Your task to perform on an android device: What's the weather today? Image 0: 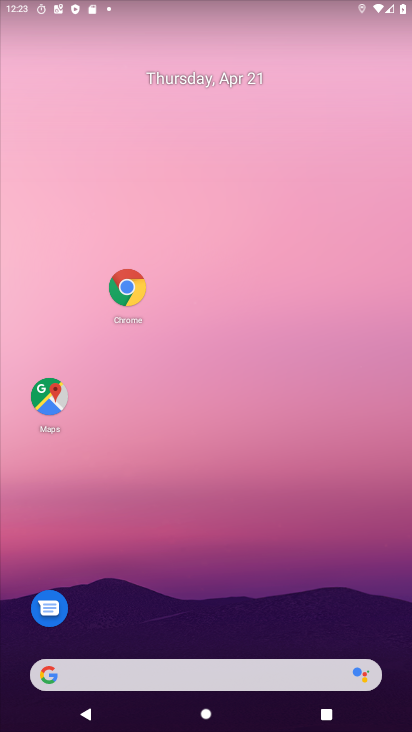
Step 0: click (128, 276)
Your task to perform on an android device: What's the weather today? Image 1: 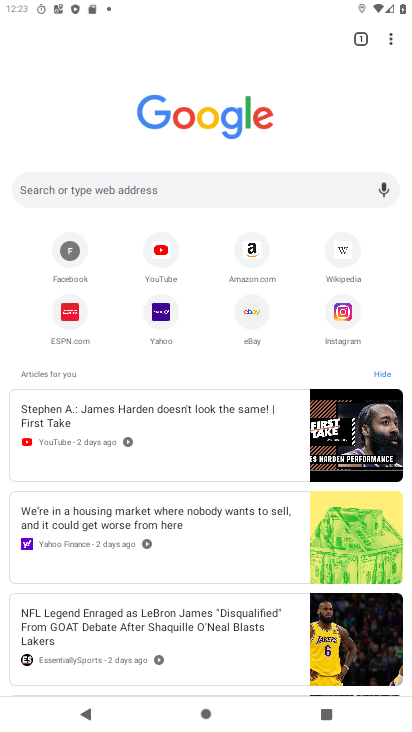
Step 1: click (276, 187)
Your task to perform on an android device: What's the weather today? Image 2: 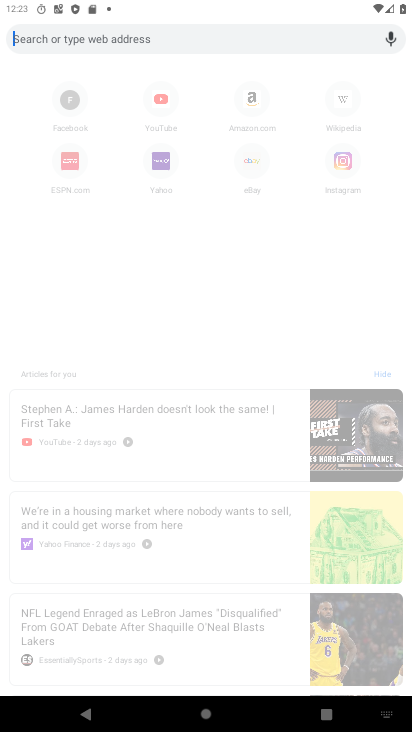
Step 2: type "whats the weather today"
Your task to perform on an android device: What's the weather today? Image 3: 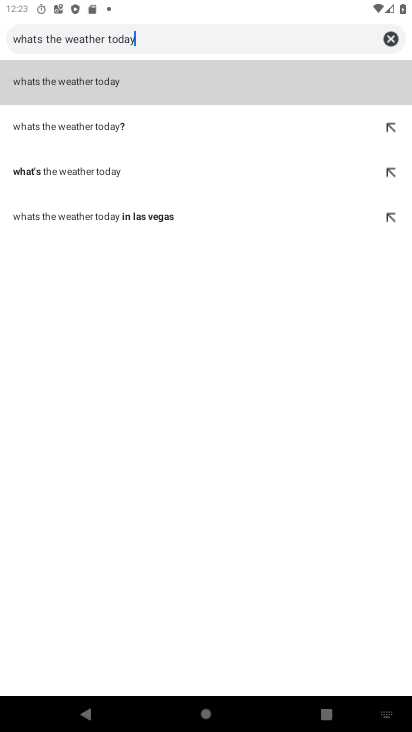
Step 3: click (101, 120)
Your task to perform on an android device: What's the weather today? Image 4: 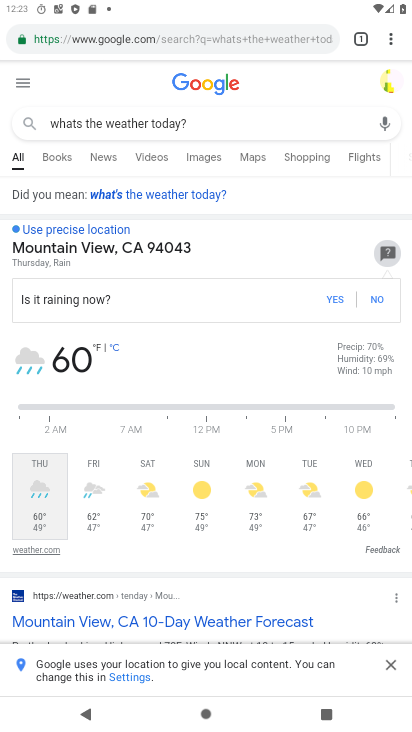
Step 4: task complete